Your task to perform on an android device: toggle location history Image 0: 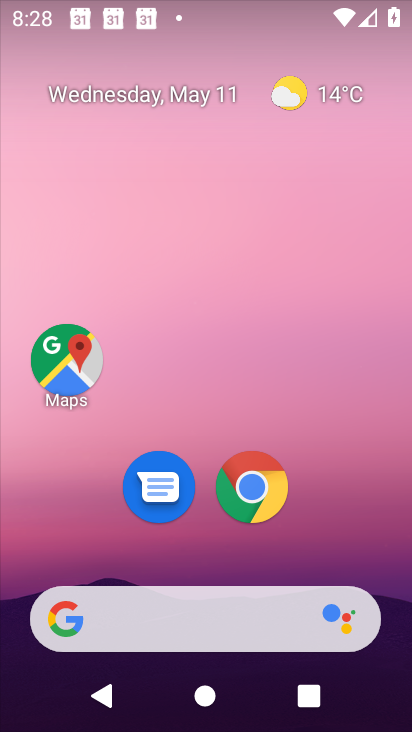
Step 0: drag from (190, 727) to (215, 249)
Your task to perform on an android device: toggle location history Image 1: 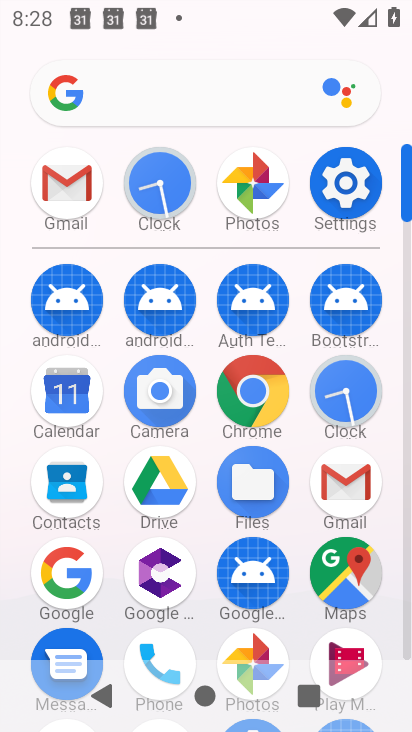
Step 1: click (346, 182)
Your task to perform on an android device: toggle location history Image 2: 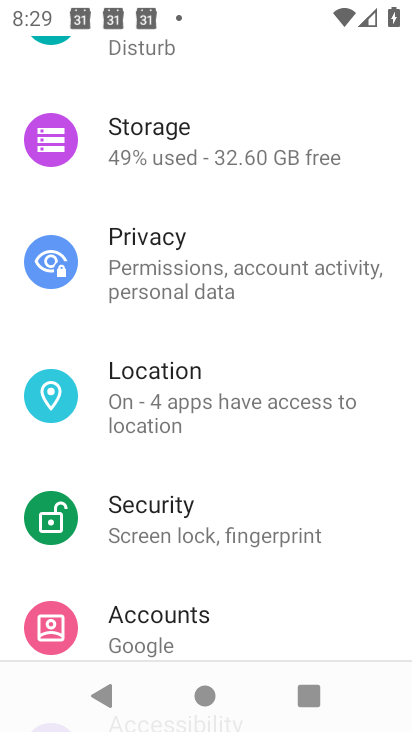
Step 2: click (170, 392)
Your task to perform on an android device: toggle location history Image 3: 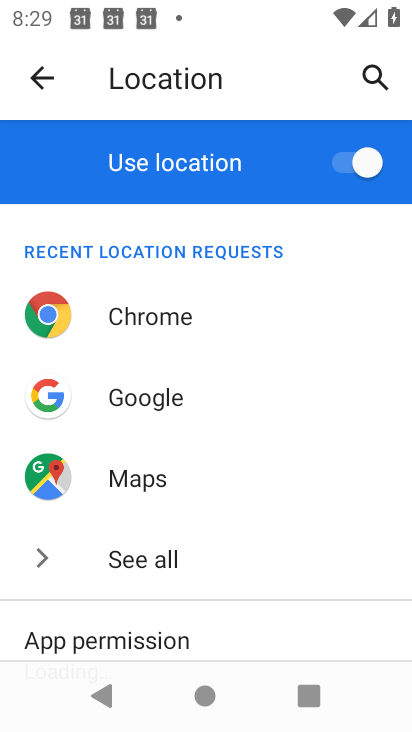
Step 3: drag from (156, 652) to (160, 318)
Your task to perform on an android device: toggle location history Image 4: 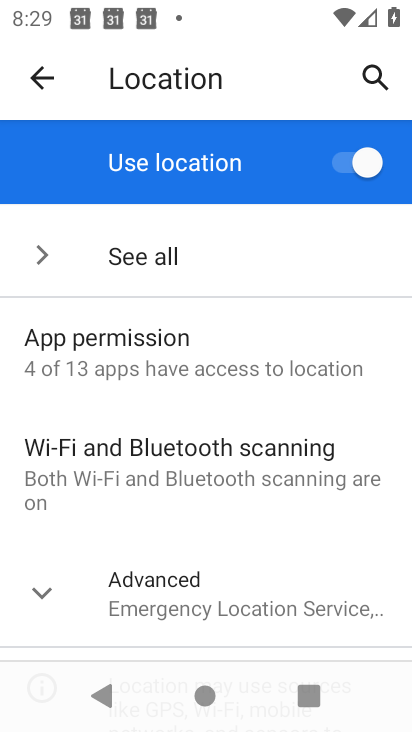
Step 4: drag from (181, 583) to (187, 299)
Your task to perform on an android device: toggle location history Image 5: 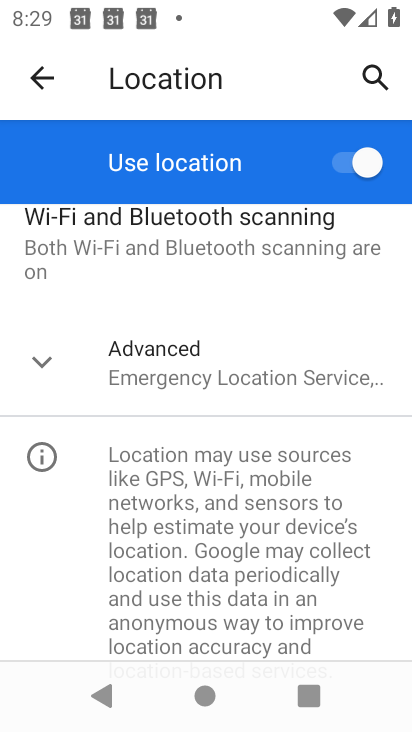
Step 5: drag from (189, 625) to (192, 381)
Your task to perform on an android device: toggle location history Image 6: 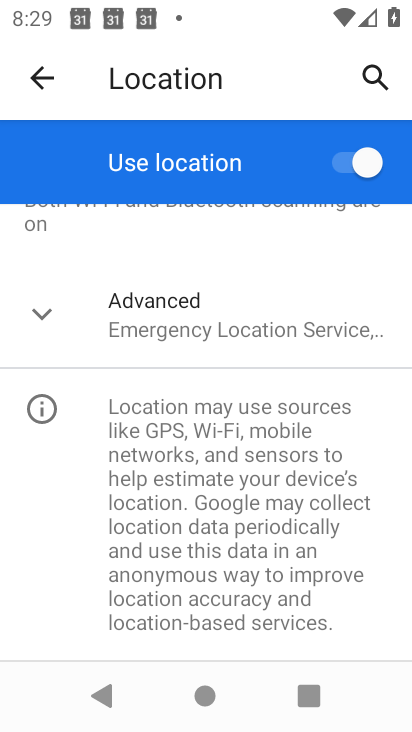
Step 6: click (204, 326)
Your task to perform on an android device: toggle location history Image 7: 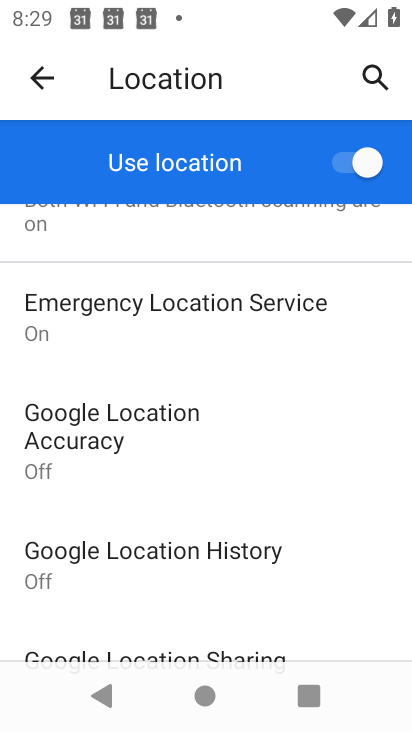
Step 7: click (168, 548)
Your task to perform on an android device: toggle location history Image 8: 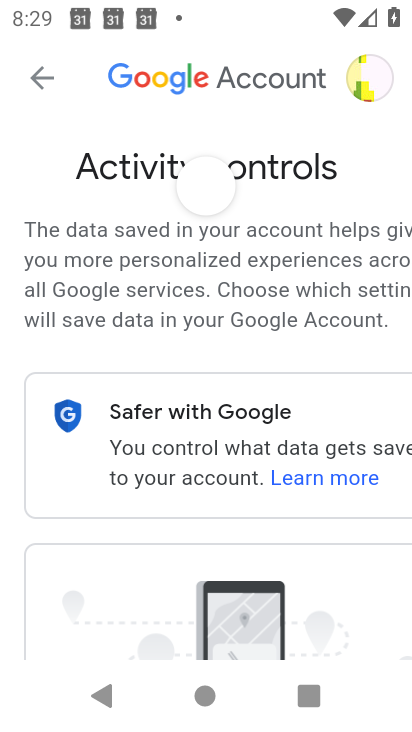
Step 8: drag from (169, 599) to (180, 331)
Your task to perform on an android device: toggle location history Image 9: 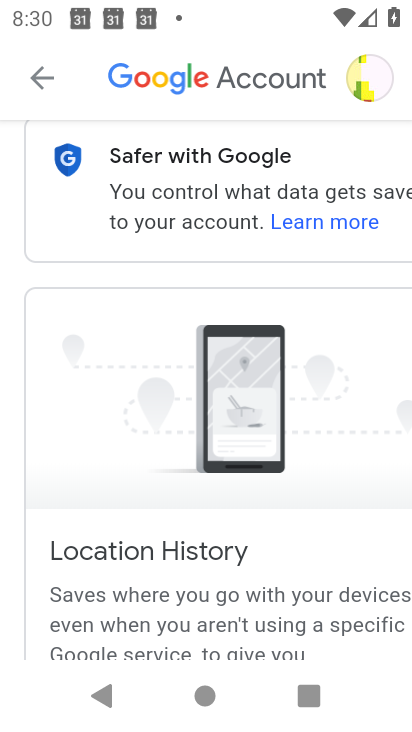
Step 9: drag from (211, 617) to (215, 289)
Your task to perform on an android device: toggle location history Image 10: 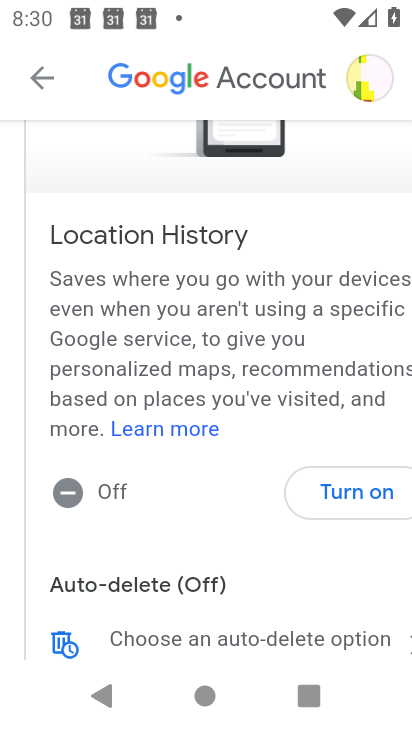
Step 10: click (341, 486)
Your task to perform on an android device: toggle location history Image 11: 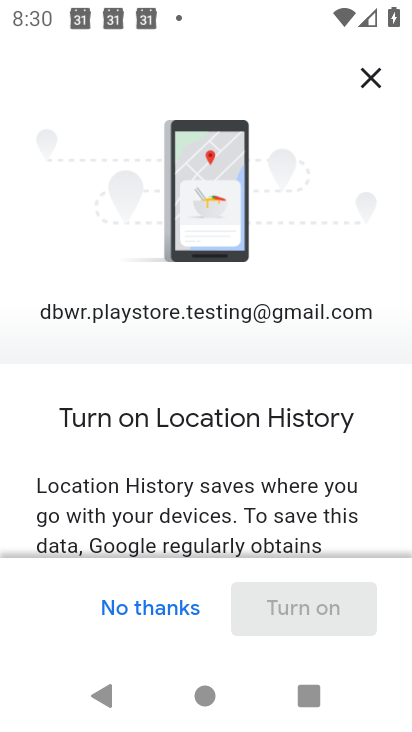
Step 11: drag from (298, 502) to (298, 166)
Your task to perform on an android device: toggle location history Image 12: 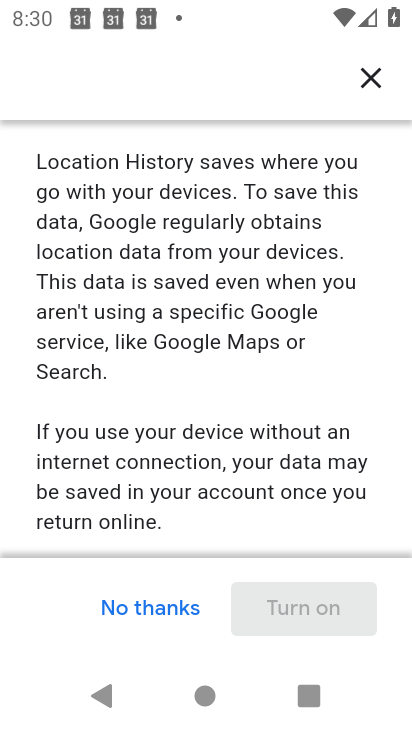
Step 12: drag from (287, 520) to (292, 242)
Your task to perform on an android device: toggle location history Image 13: 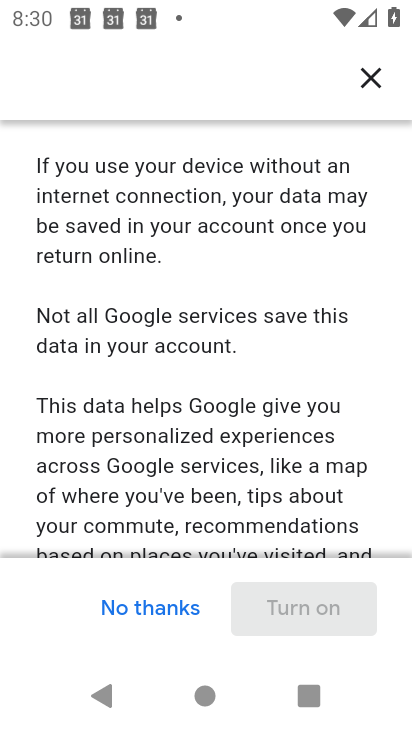
Step 13: drag from (278, 538) to (280, 269)
Your task to perform on an android device: toggle location history Image 14: 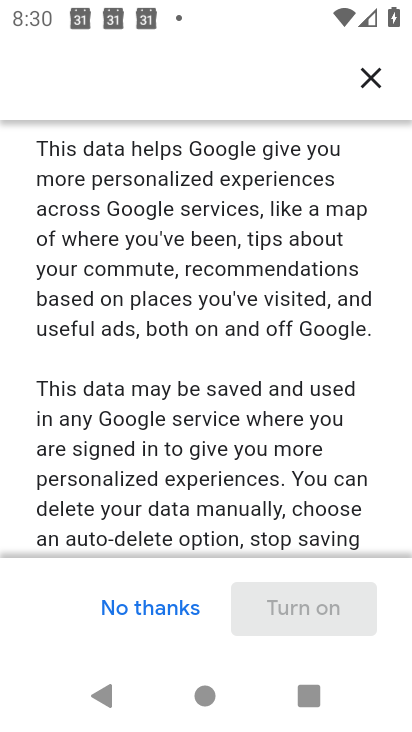
Step 14: drag from (298, 512) to (296, 327)
Your task to perform on an android device: toggle location history Image 15: 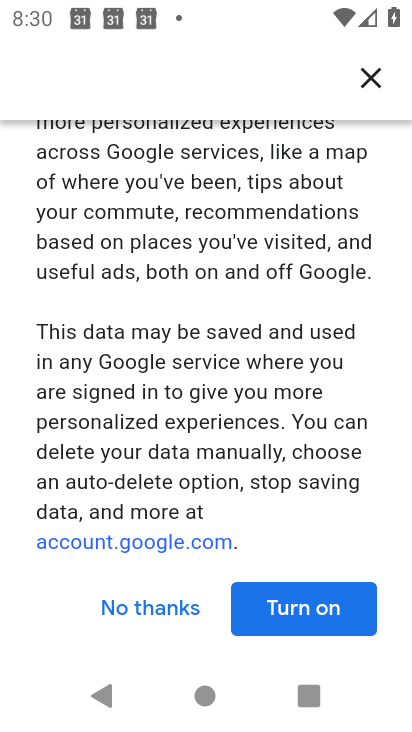
Step 15: click (315, 617)
Your task to perform on an android device: toggle location history Image 16: 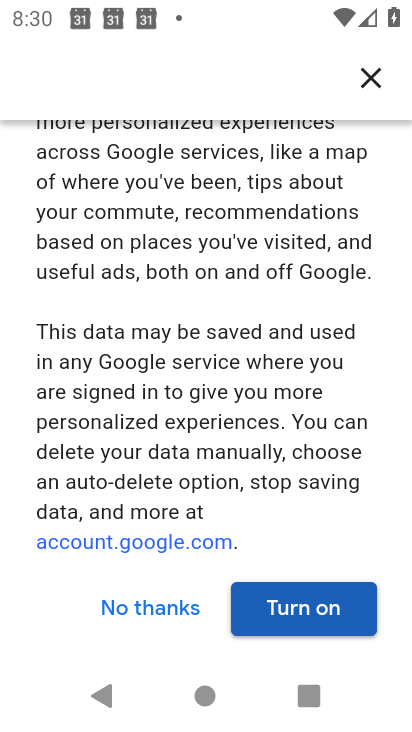
Step 16: click (282, 616)
Your task to perform on an android device: toggle location history Image 17: 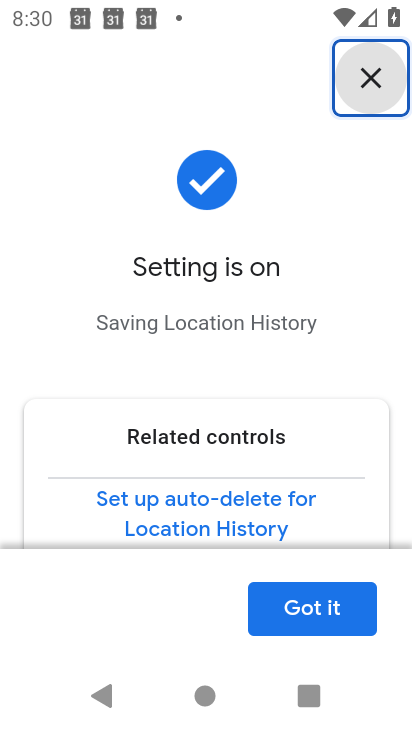
Step 17: click (304, 604)
Your task to perform on an android device: toggle location history Image 18: 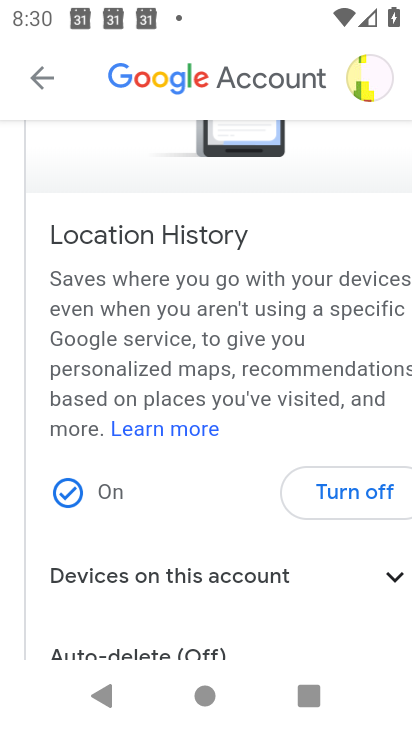
Step 18: task complete